Your task to perform on an android device: Open wifi settings Image 0: 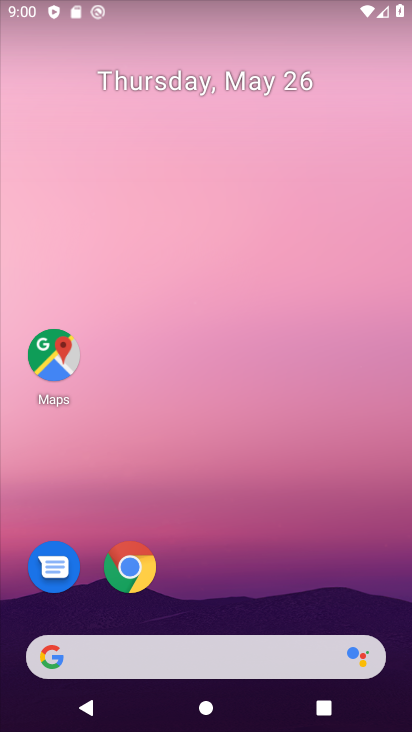
Step 0: drag from (206, 590) to (305, 244)
Your task to perform on an android device: Open wifi settings Image 1: 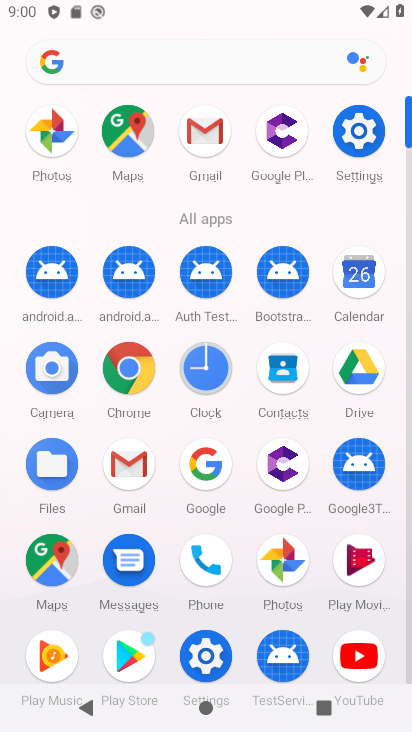
Step 1: click (360, 132)
Your task to perform on an android device: Open wifi settings Image 2: 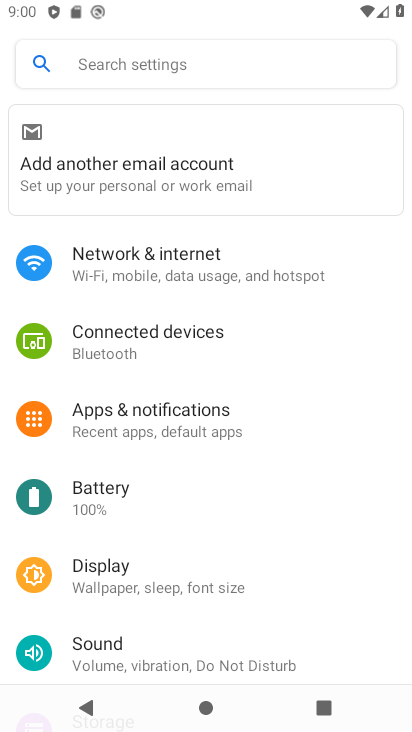
Step 2: click (222, 155)
Your task to perform on an android device: Open wifi settings Image 3: 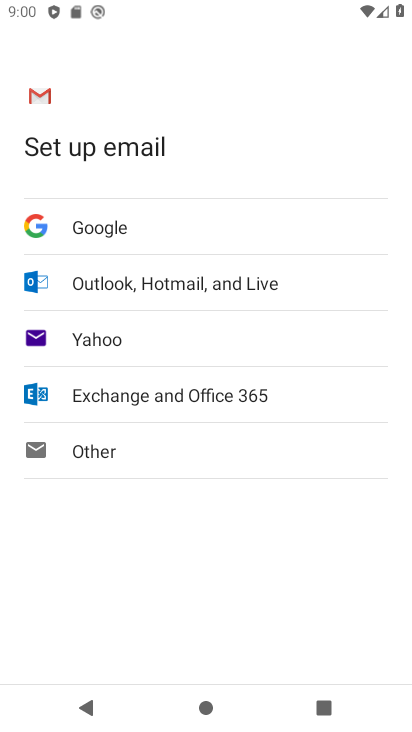
Step 3: press back button
Your task to perform on an android device: Open wifi settings Image 4: 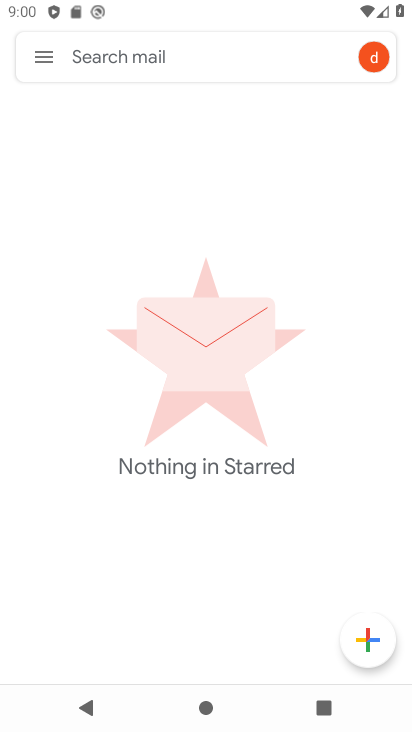
Step 4: press home button
Your task to perform on an android device: Open wifi settings Image 5: 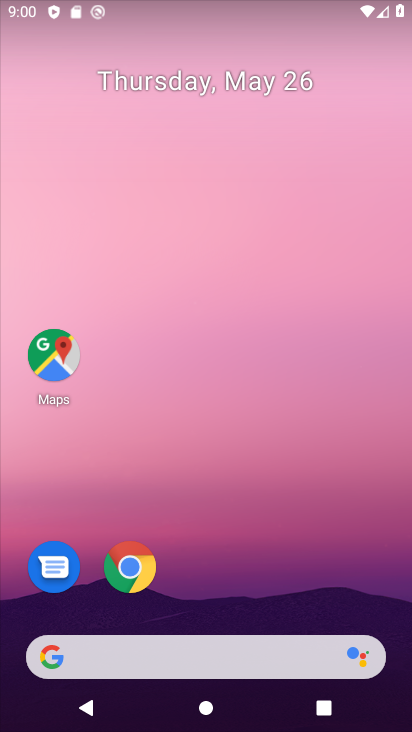
Step 5: drag from (207, 569) to (244, 204)
Your task to perform on an android device: Open wifi settings Image 6: 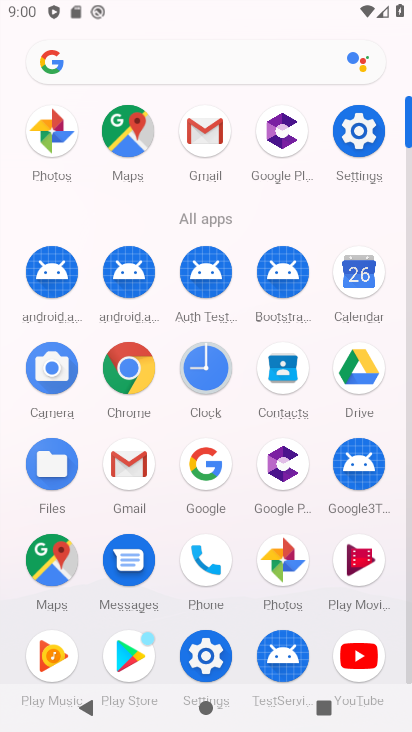
Step 6: click (362, 129)
Your task to perform on an android device: Open wifi settings Image 7: 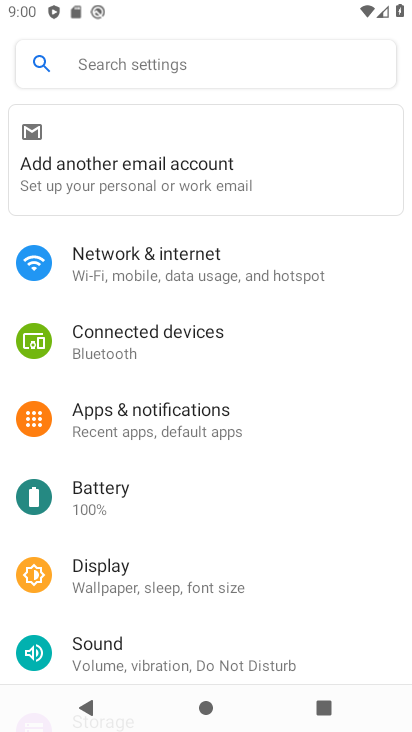
Step 7: click (225, 271)
Your task to perform on an android device: Open wifi settings Image 8: 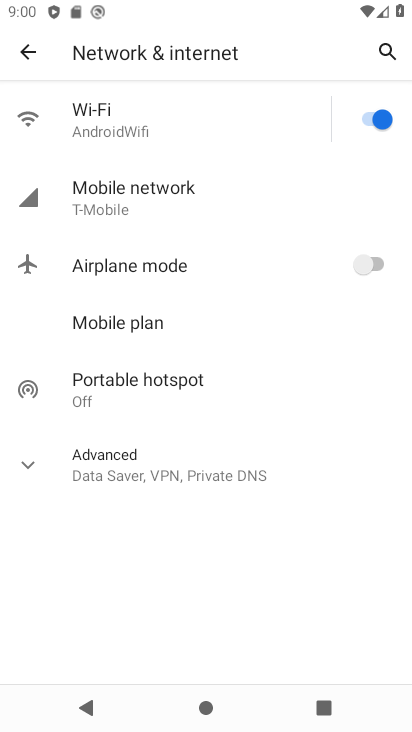
Step 8: click (138, 120)
Your task to perform on an android device: Open wifi settings Image 9: 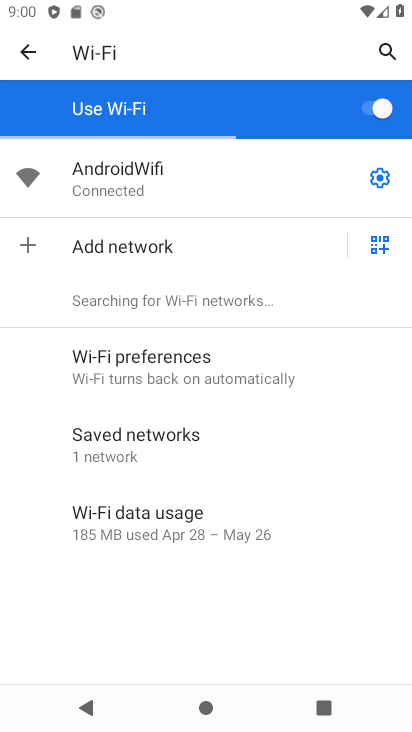
Step 9: task complete